Your task to perform on an android device: Clear the shopping cart on walmart. Search for usb-c on walmart, select the first entry, add it to the cart, then select checkout. Image 0: 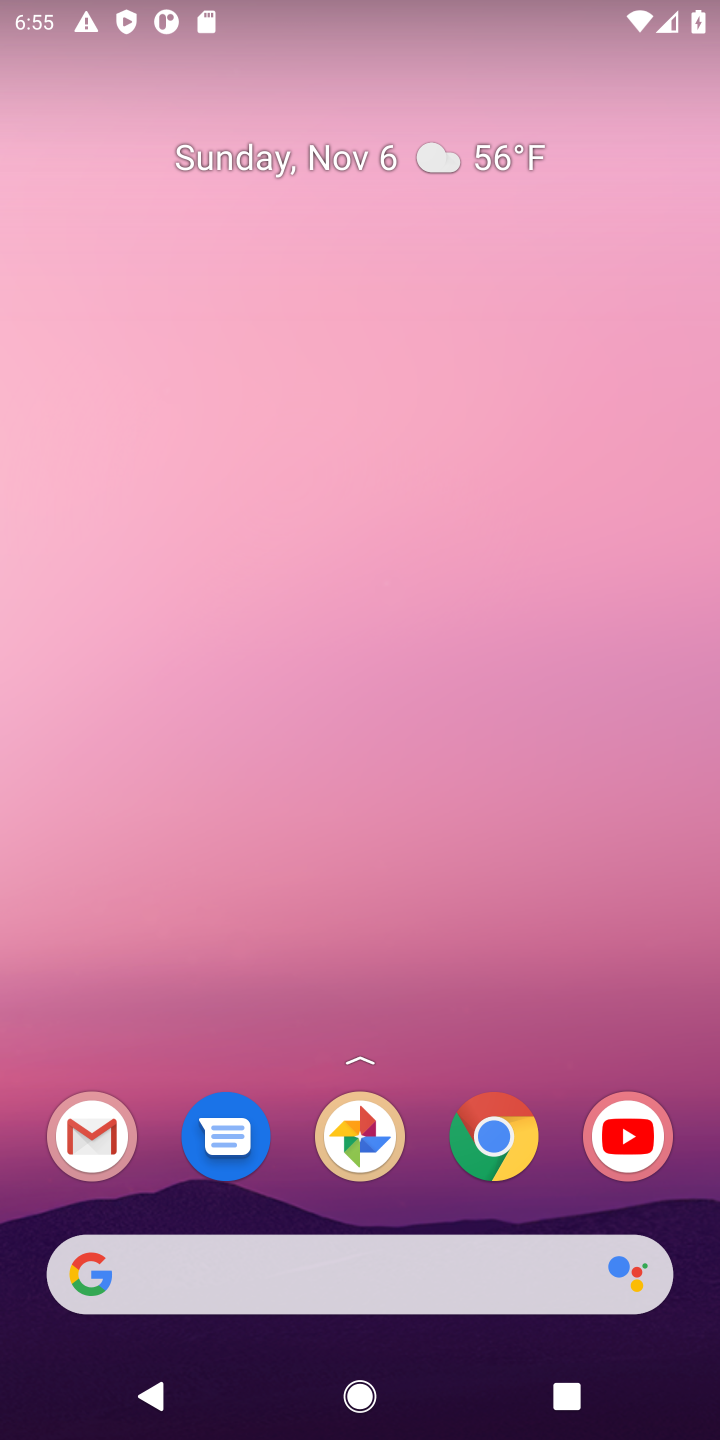
Step 0: click (304, 1298)
Your task to perform on an android device: Clear the shopping cart on walmart. Search for usb-c on walmart, select the first entry, add it to the cart, then select checkout. Image 1: 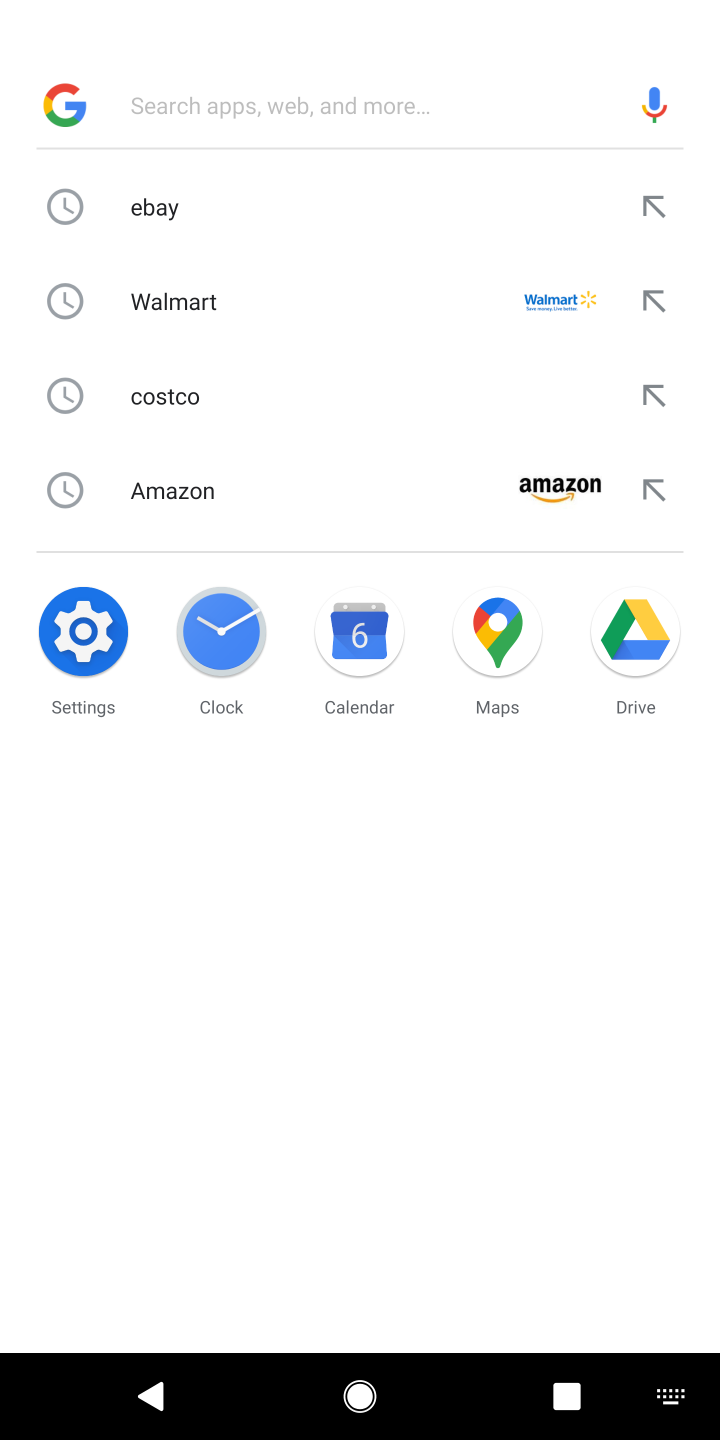
Step 1: type "walmart"
Your task to perform on an android device: Clear the shopping cart on walmart. Search for usb-c on walmart, select the first entry, add it to the cart, then select checkout. Image 2: 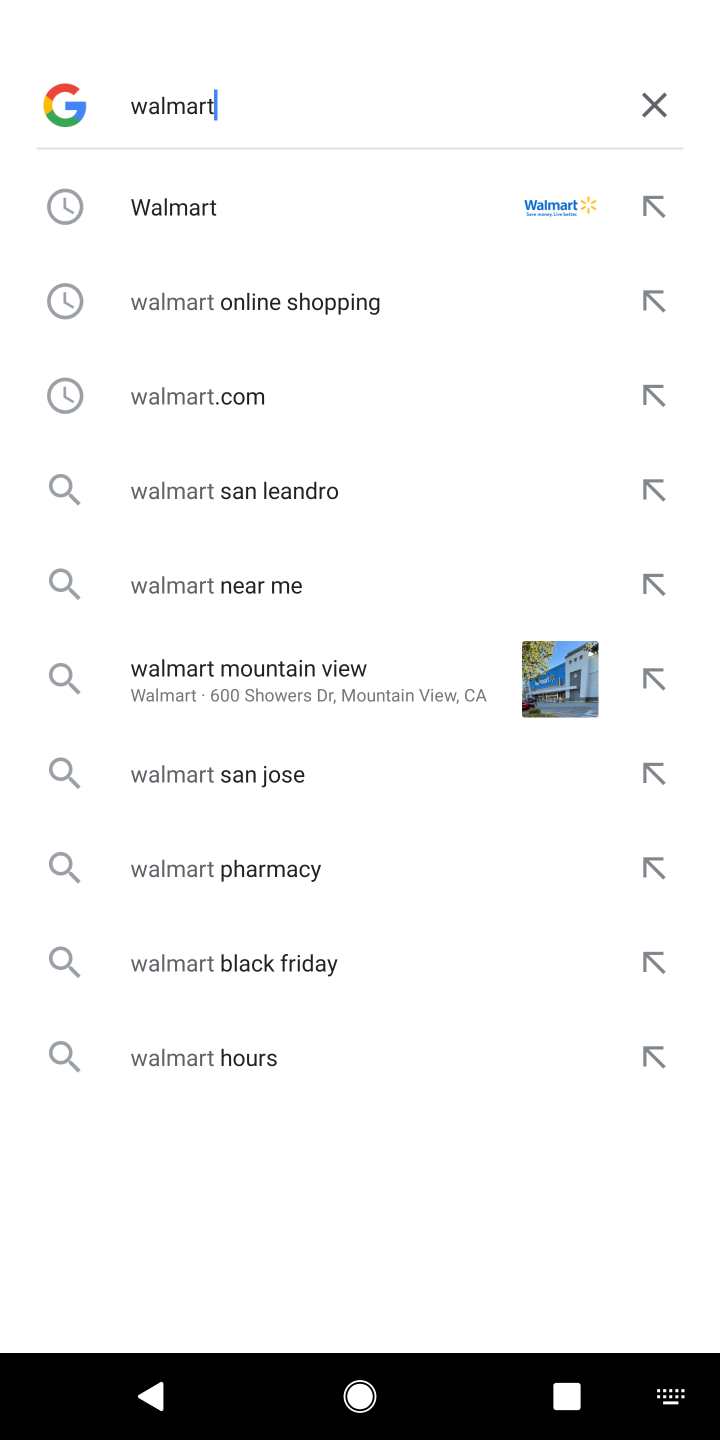
Step 2: click (259, 213)
Your task to perform on an android device: Clear the shopping cart on walmart. Search for usb-c on walmart, select the first entry, add it to the cart, then select checkout. Image 3: 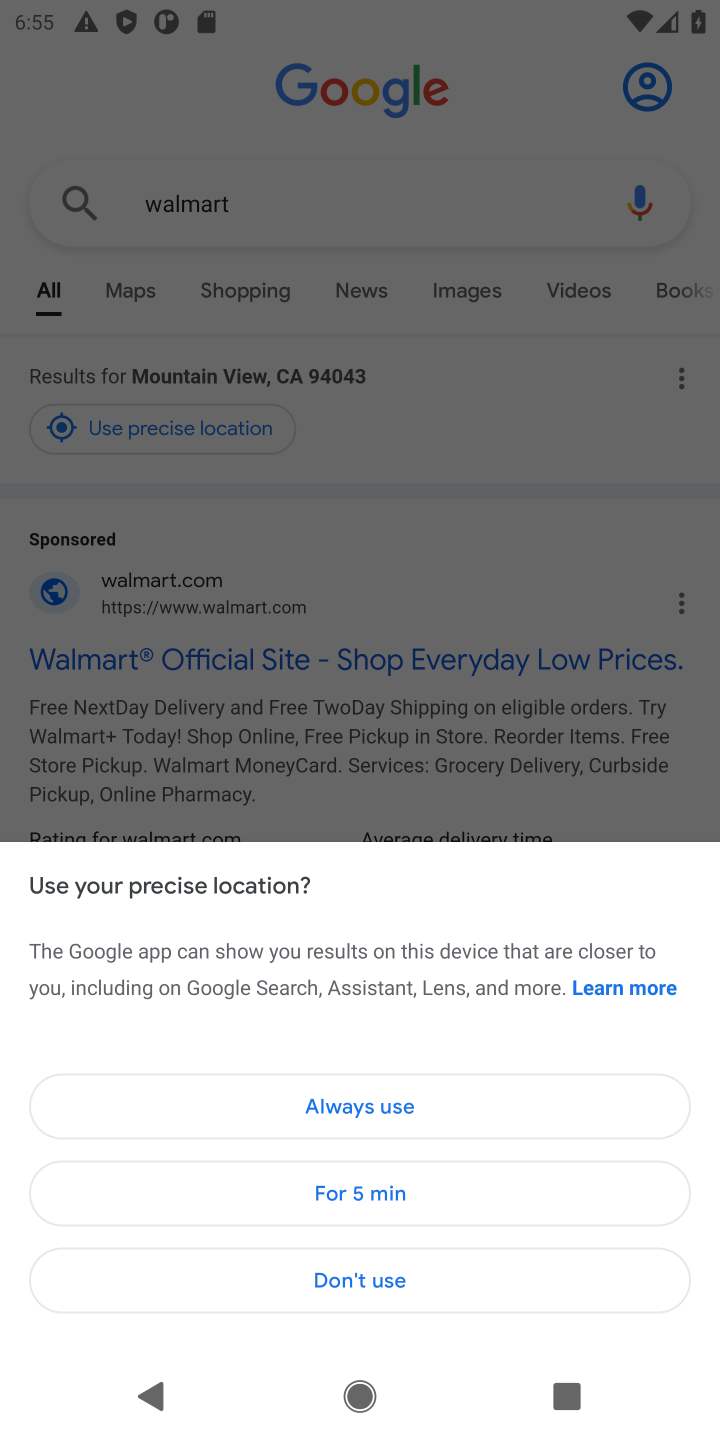
Step 3: click (437, 1301)
Your task to perform on an android device: Clear the shopping cart on walmart. Search for usb-c on walmart, select the first entry, add it to the cart, then select checkout. Image 4: 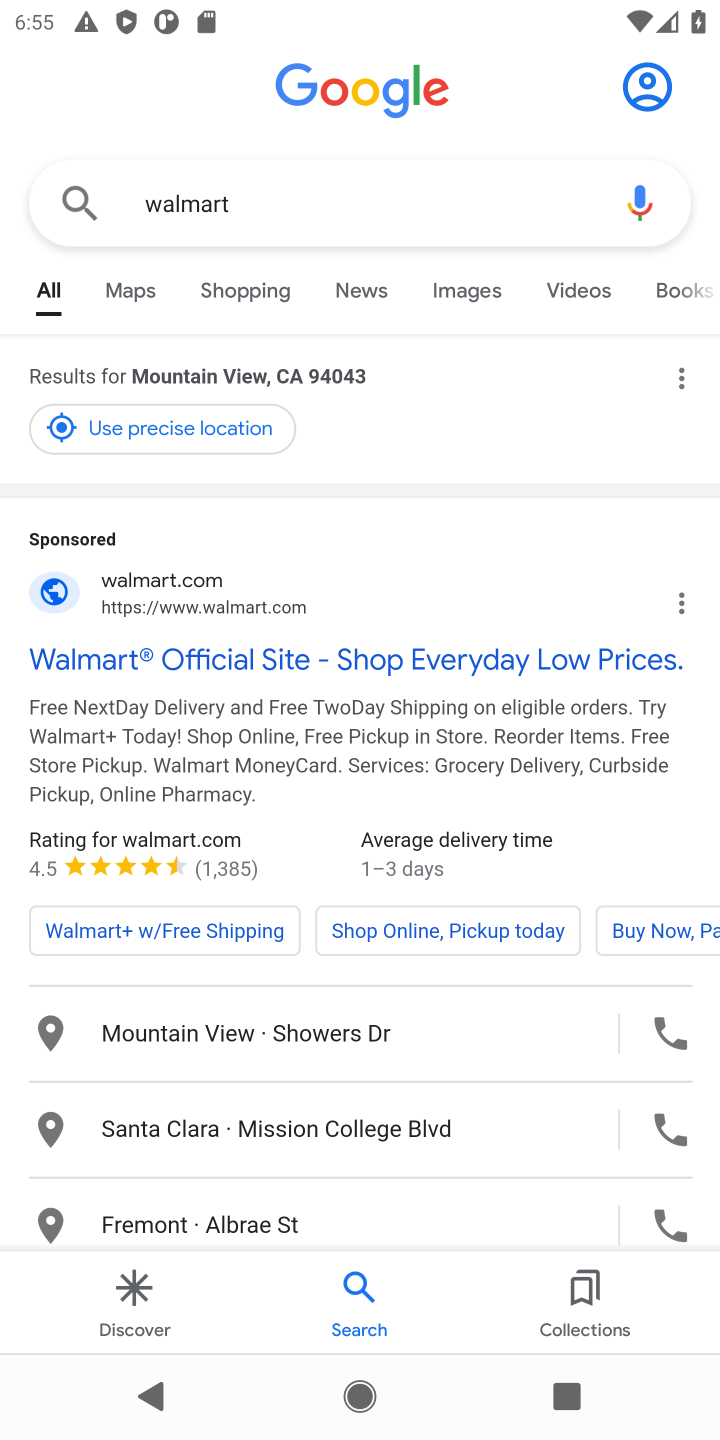
Step 4: click (325, 678)
Your task to perform on an android device: Clear the shopping cart on walmart. Search for usb-c on walmart, select the first entry, add it to the cart, then select checkout. Image 5: 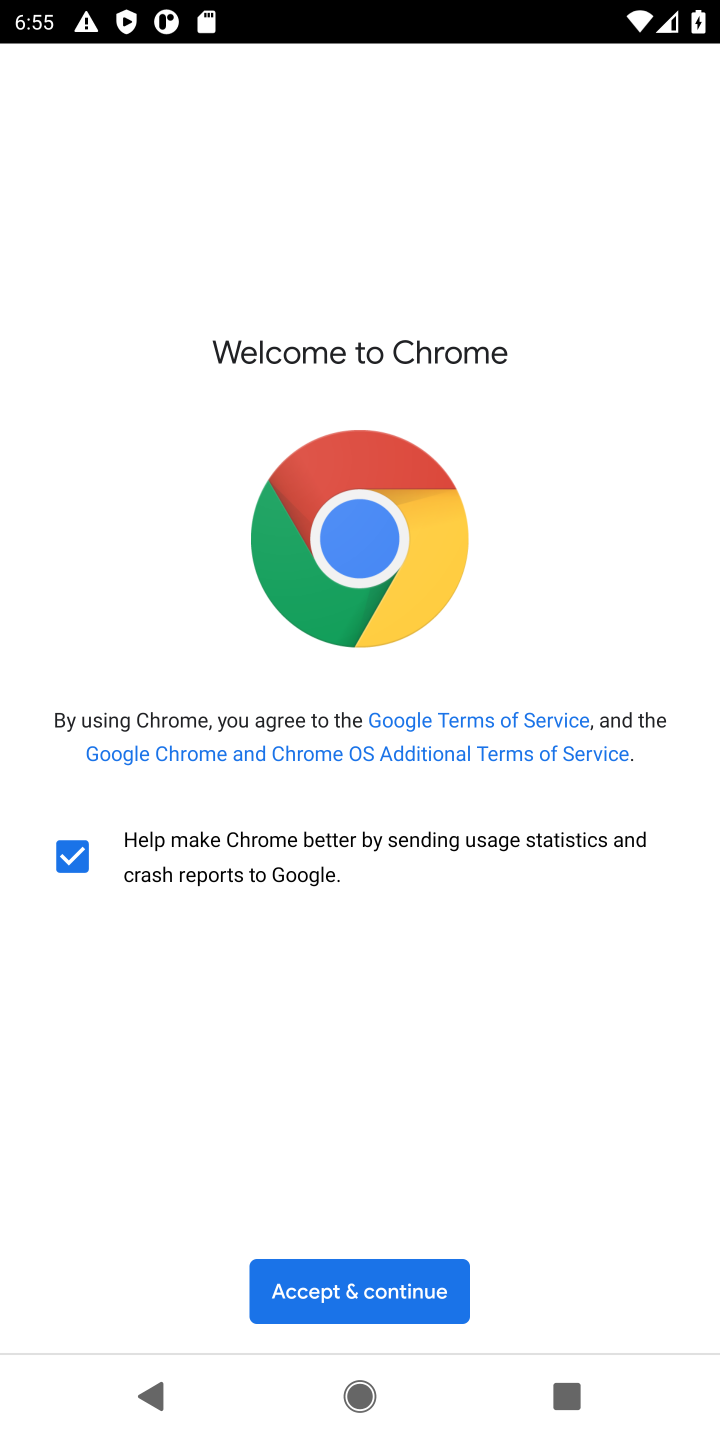
Step 5: click (356, 1260)
Your task to perform on an android device: Clear the shopping cart on walmart. Search for usb-c on walmart, select the first entry, add it to the cart, then select checkout. Image 6: 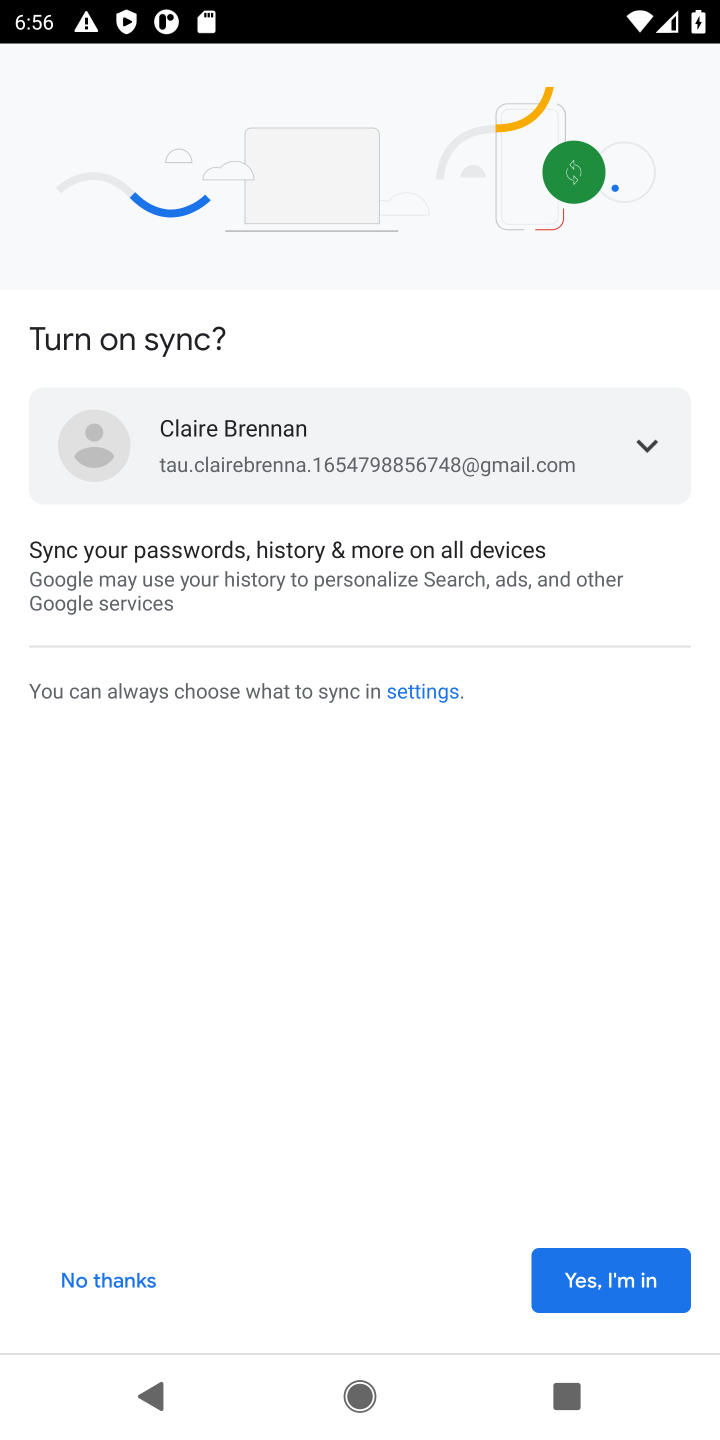
Step 6: click (609, 1302)
Your task to perform on an android device: Clear the shopping cart on walmart. Search for usb-c on walmart, select the first entry, add it to the cart, then select checkout. Image 7: 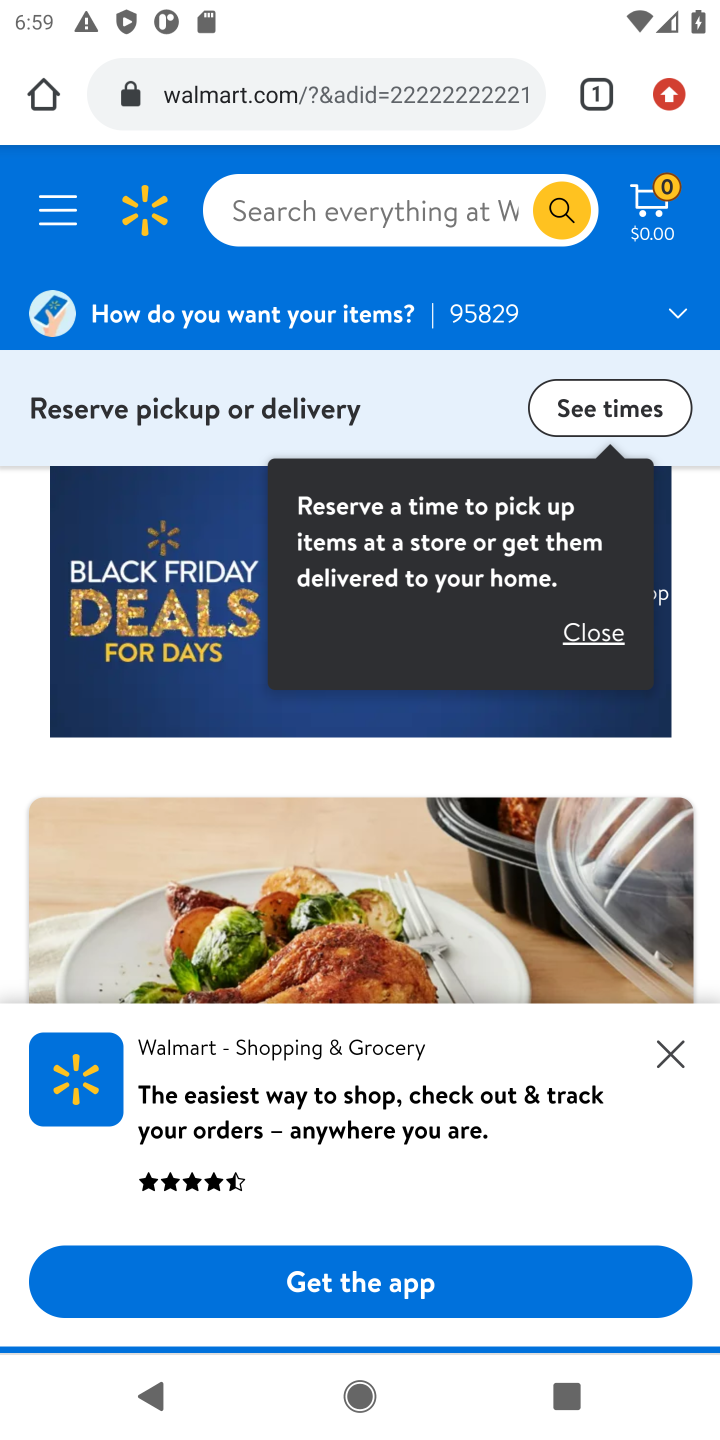
Step 7: task complete